Your task to perform on an android device: change your default location settings in chrome Image 0: 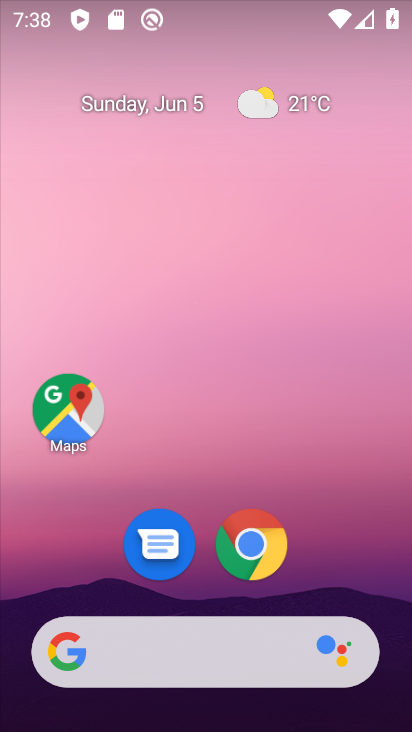
Step 0: click (247, 549)
Your task to perform on an android device: change your default location settings in chrome Image 1: 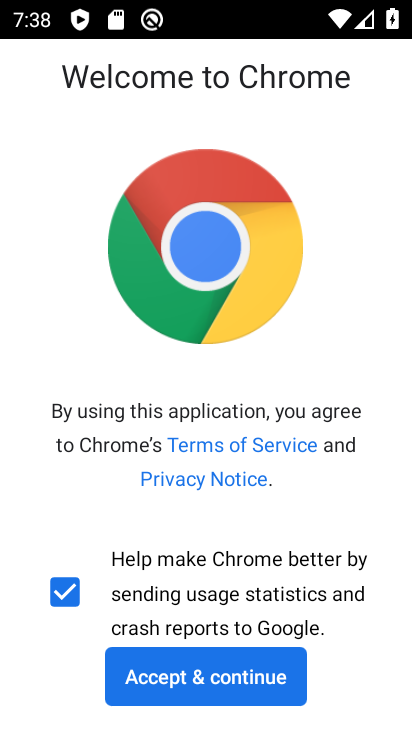
Step 1: click (191, 670)
Your task to perform on an android device: change your default location settings in chrome Image 2: 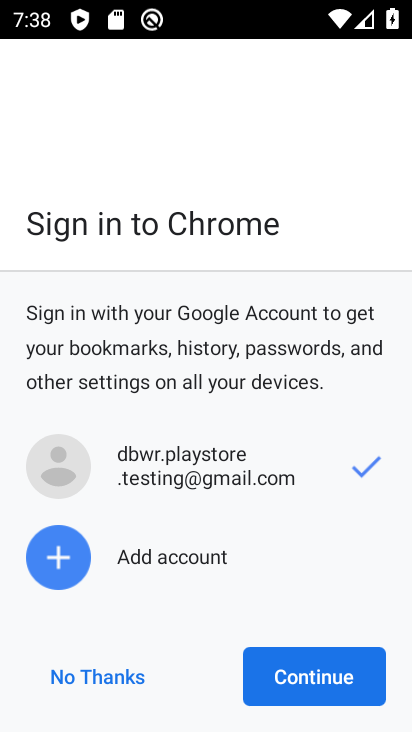
Step 2: click (310, 677)
Your task to perform on an android device: change your default location settings in chrome Image 3: 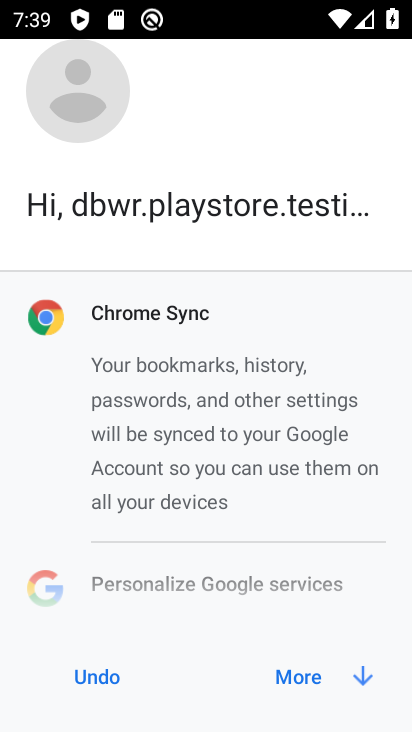
Step 3: click (310, 677)
Your task to perform on an android device: change your default location settings in chrome Image 4: 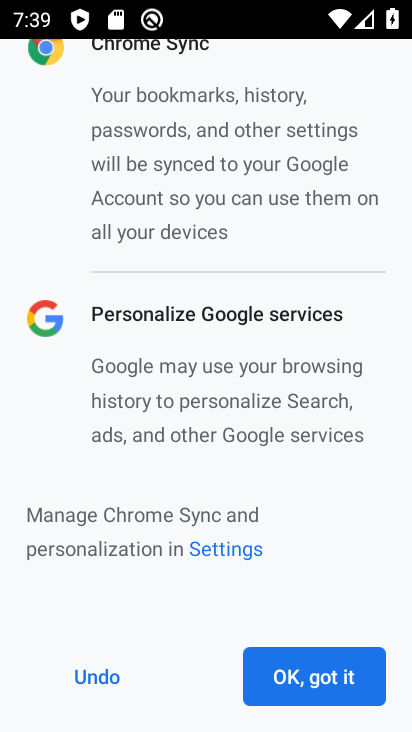
Step 4: click (310, 677)
Your task to perform on an android device: change your default location settings in chrome Image 5: 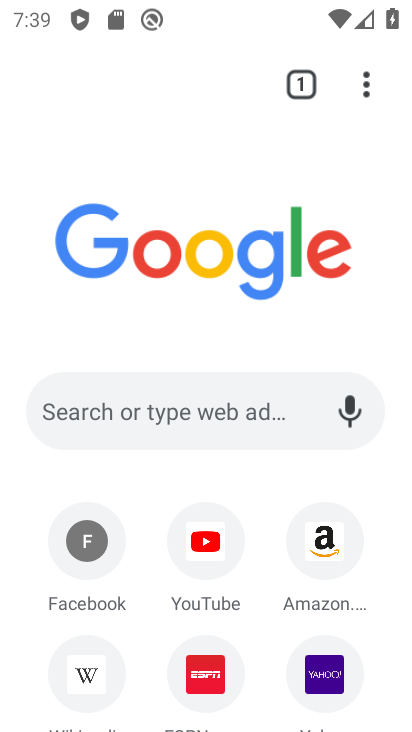
Step 5: click (367, 73)
Your task to perform on an android device: change your default location settings in chrome Image 6: 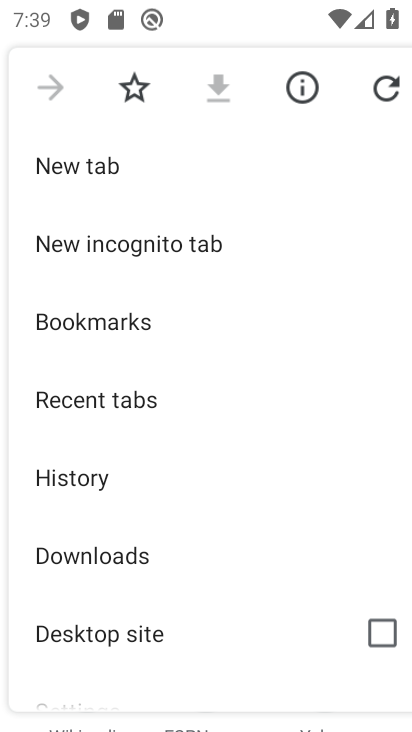
Step 6: drag from (228, 585) to (237, 362)
Your task to perform on an android device: change your default location settings in chrome Image 7: 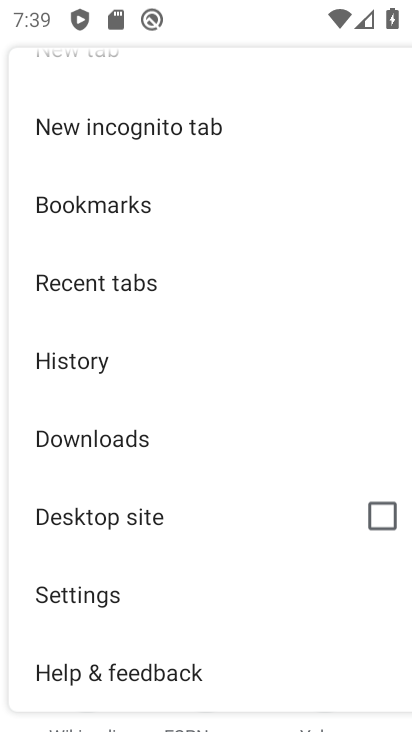
Step 7: click (98, 594)
Your task to perform on an android device: change your default location settings in chrome Image 8: 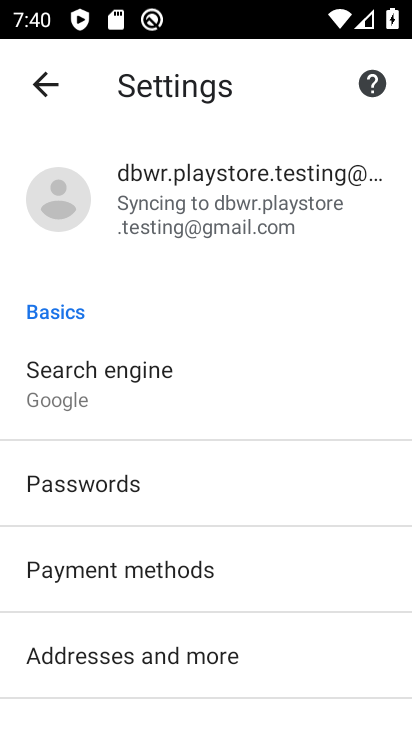
Step 8: drag from (180, 581) to (173, 362)
Your task to perform on an android device: change your default location settings in chrome Image 9: 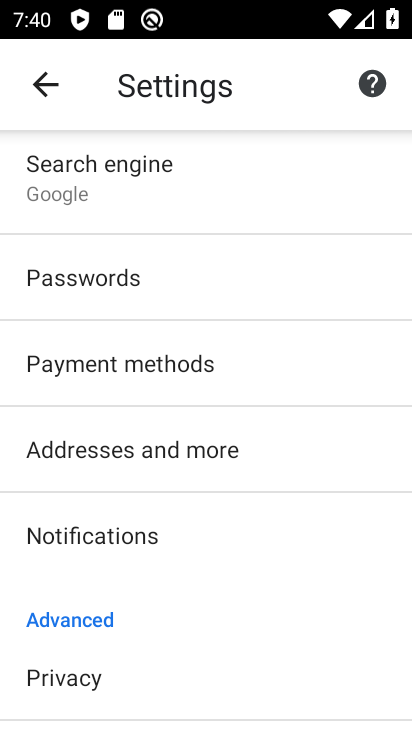
Step 9: drag from (209, 694) to (209, 404)
Your task to perform on an android device: change your default location settings in chrome Image 10: 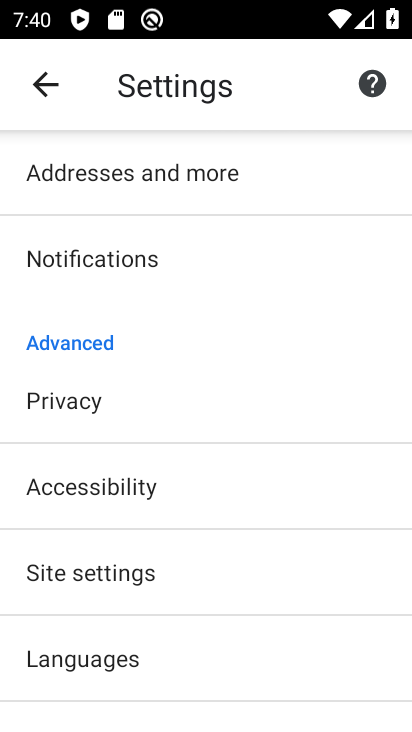
Step 10: drag from (236, 684) to (232, 403)
Your task to perform on an android device: change your default location settings in chrome Image 11: 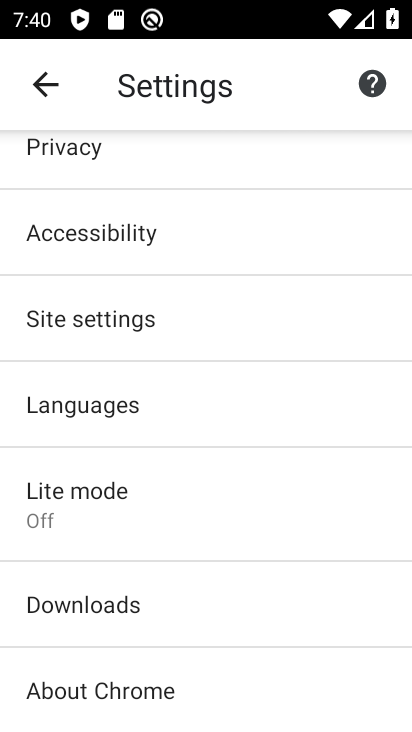
Step 11: drag from (201, 234) to (261, 534)
Your task to perform on an android device: change your default location settings in chrome Image 12: 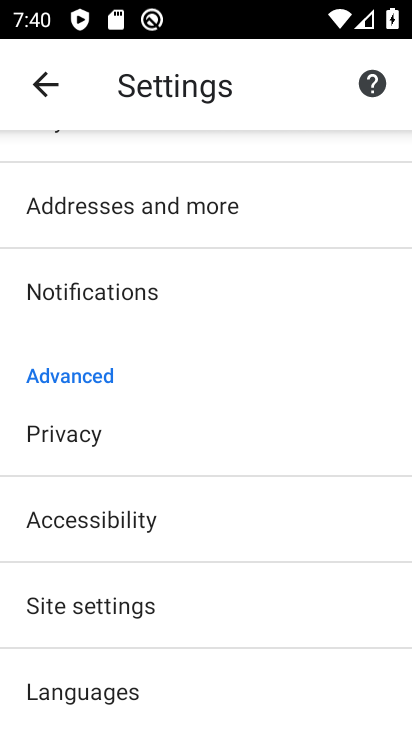
Step 12: click (135, 612)
Your task to perform on an android device: change your default location settings in chrome Image 13: 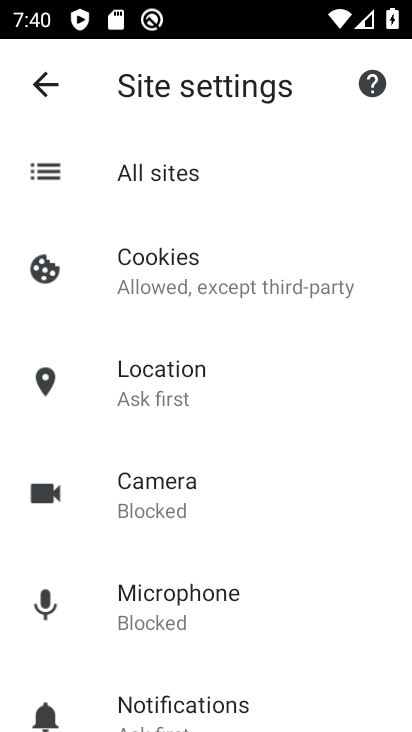
Step 13: click (168, 381)
Your task to perform on an android device: change your default location settings in chrome Image 14: 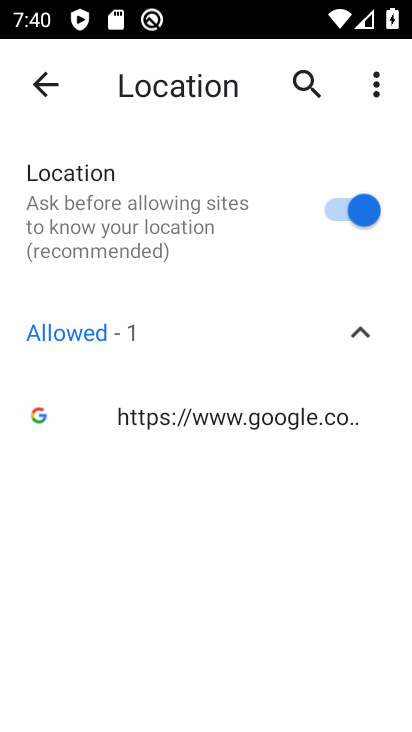
Step 14: click (347, 210)
Your task to perform on an android device: change your default location settings in chrome Image 15: 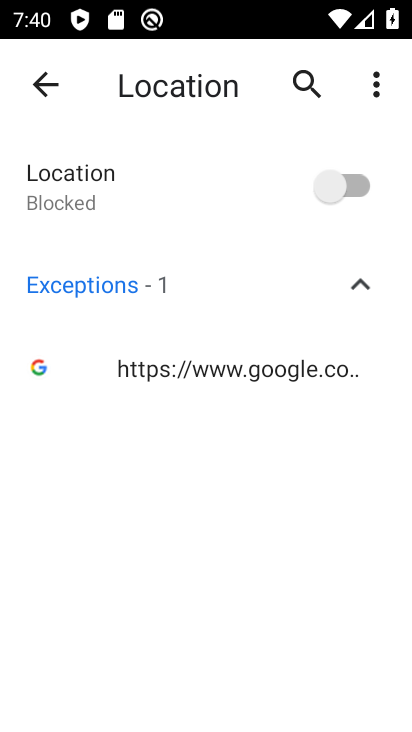
Step 15: task complete